Your task to perform on an android device: toggle show notifications on the lock screen Image 0: 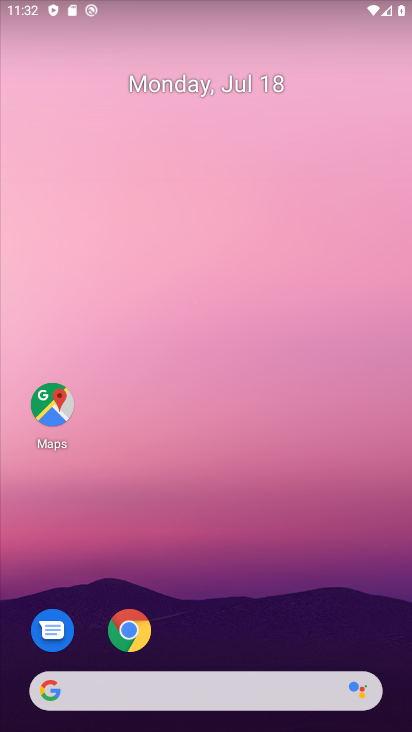
Step 0: drag from (236, 644) to (210, 23)
Your task to perform on an android device: toggle show notifications on the lock screen Image 1: 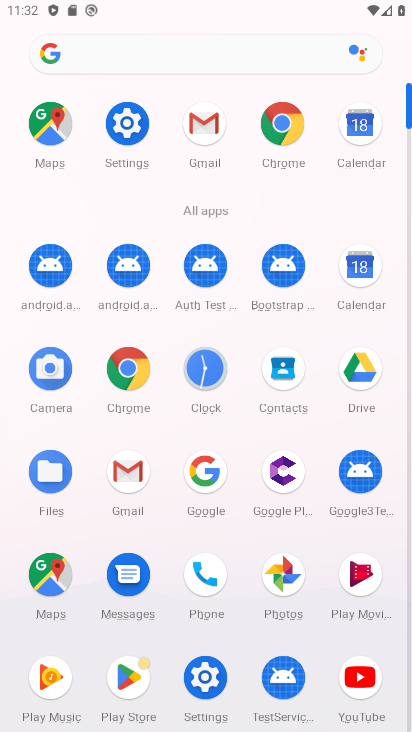
Step 1: click (131, 134)
Your task to perform on an android device: toggle show notifications on the lock screen Image 2: 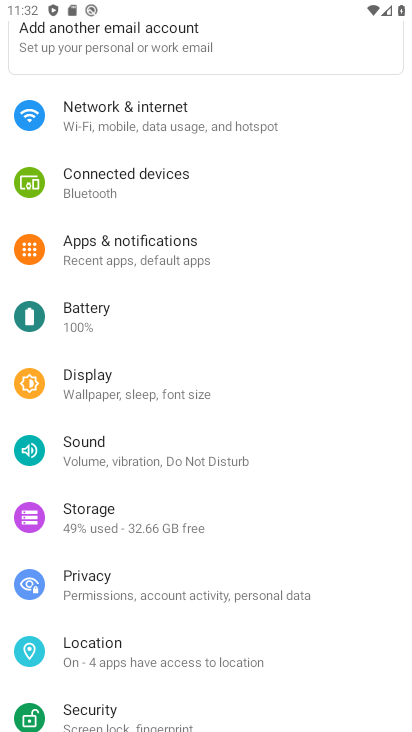
Step 2: click (160, 610)
Your task to perform on an android device: toggle show notifications on the lock screen Image 3: 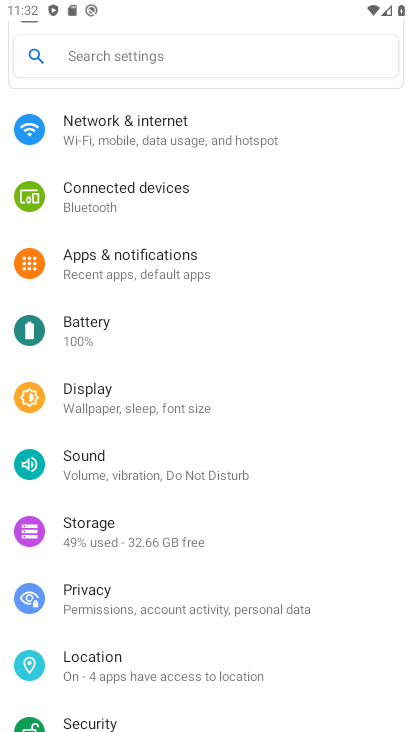
Step 3: click (152, 271)
Your task to perform on an android device: toggle show notifications on the lock screen Image 4: 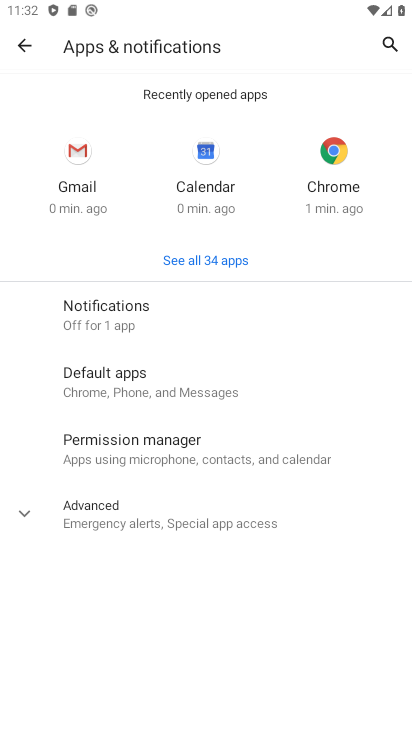
Step 4: click (127, 319)
Your task to perform on an android device: toggle show notifications on the lock screen Image 5: 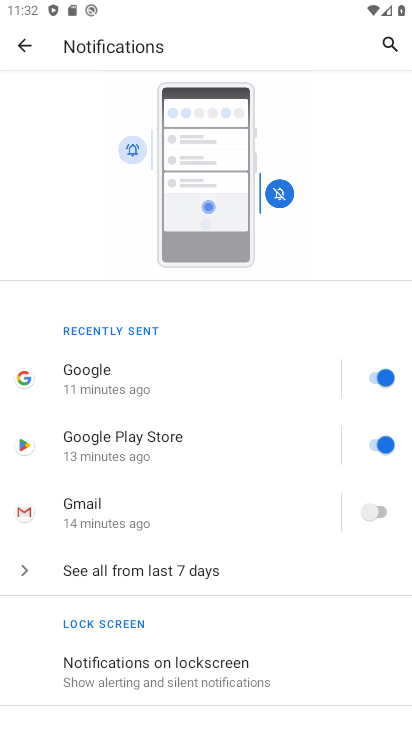
Step 5: drag from (192, 619) to (191, 521)
Your task to perform on an android device: toggle show notifications on the lock screen Image 6: 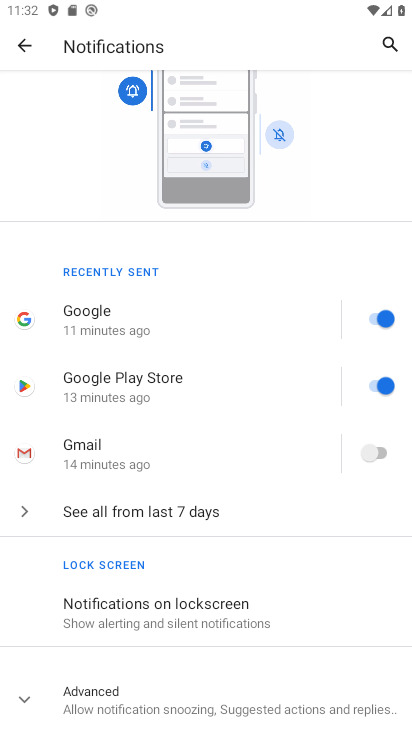
Step 6: click (168, 619)
Your task to perform on an android device: toggle show notifications on the lock screen Image 7: 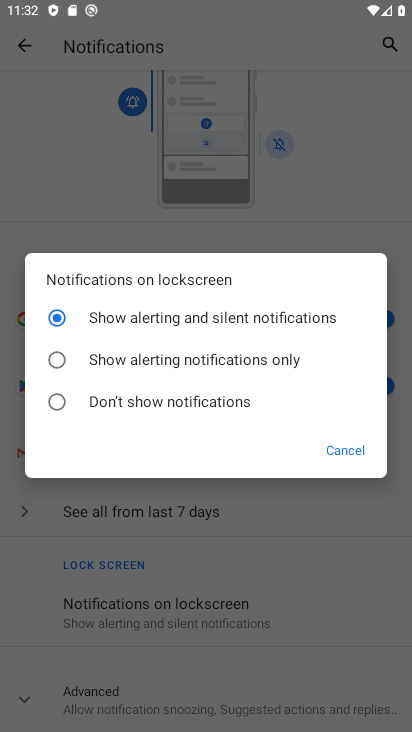
Step 7: click (129, 390)
Your task to perform on an android device: toggle show notifications on the lock screen Image 8: 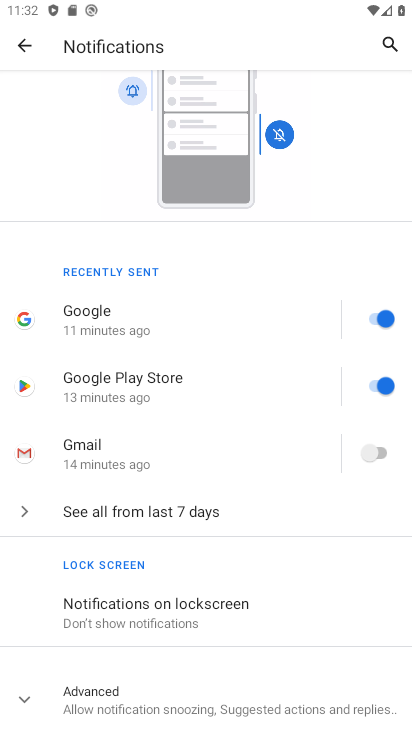
Step 8: task complete